Your task to perform on an android device: see sites visited before in the chrome app Image 0: 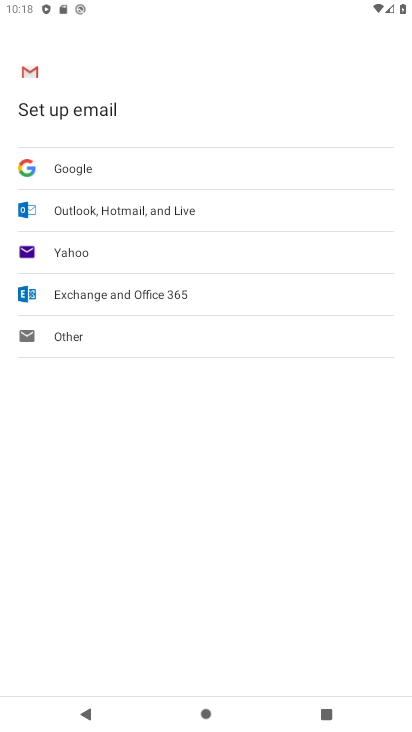
Step 0: press home button
Your task to perform on an android device: see sites visited before in the chrome app Image 1: 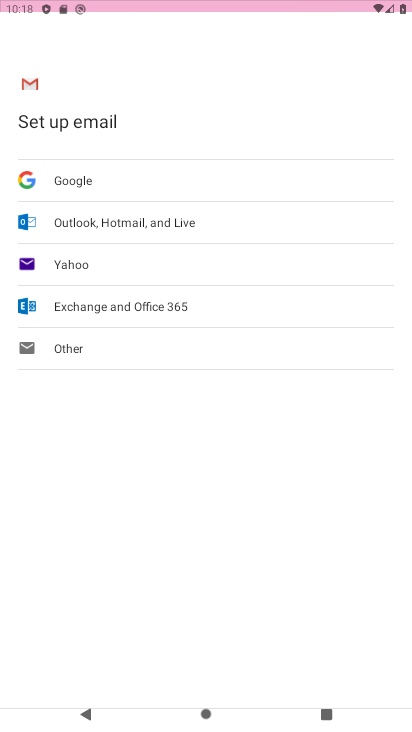
Step 1: drag from (302, 659) to (219, 5)
Your task to perform on an android device: see sites visited before in the chrome app Image 2: 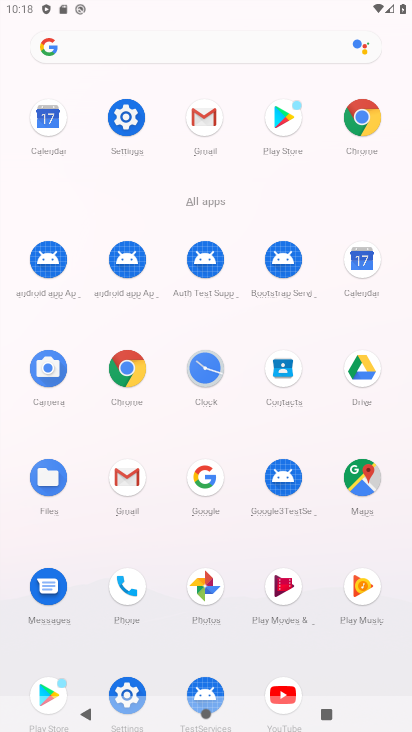
Step 2: click (122, 372)
Your task to perform on an android device: see sites visited before in the chrome app Image 3: 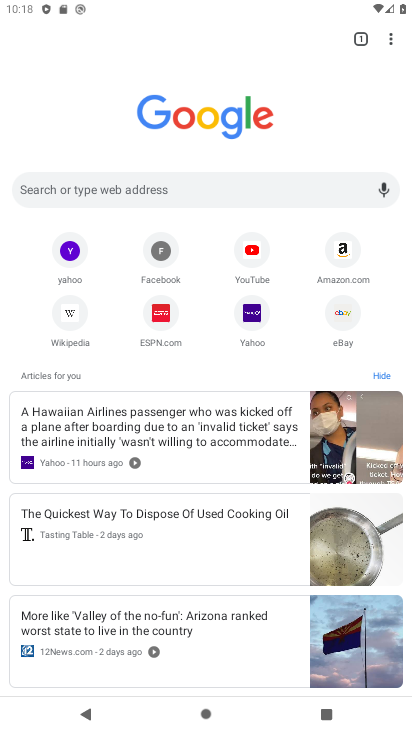
Step 3: task complete